Your task to perform on an android device: manage bookmarks in the chrome app Image 0: 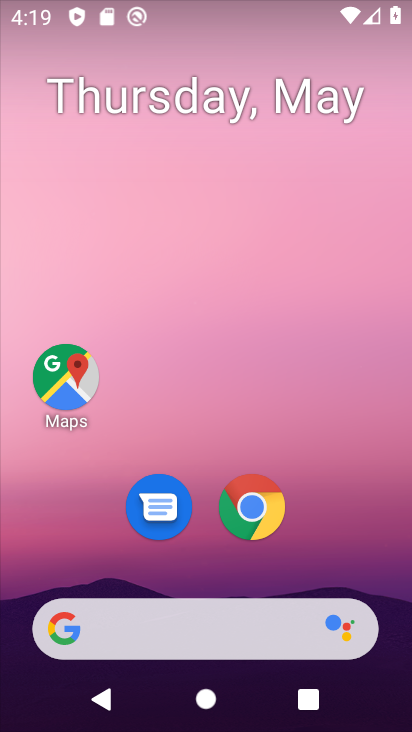
Step 0: drag from (362, 581) to (113, 6)
Your task to perform on an android device: manage bookmarks in the chrome app Image 1: 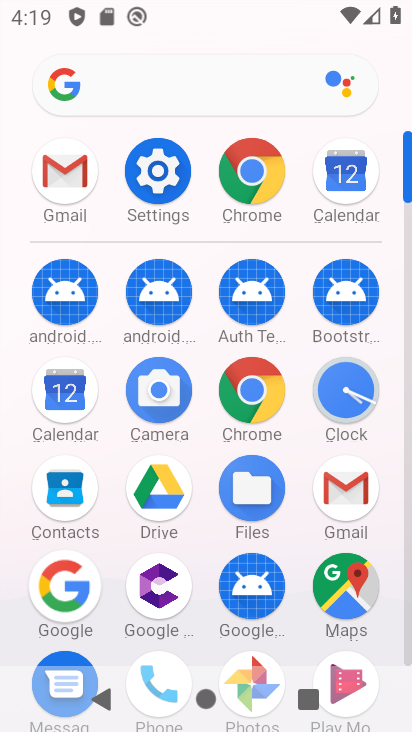
Step 1: click (237, 182)
Your task to perform on an android device: manage bookmarks in the chrome app Image 2: 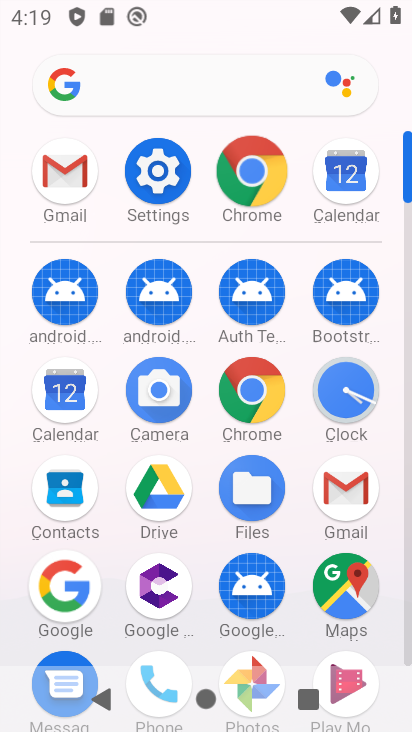
Step 2: click (241, 168)
Your task to perform on an android device: manage bookmarks in the chrome app Image 3: 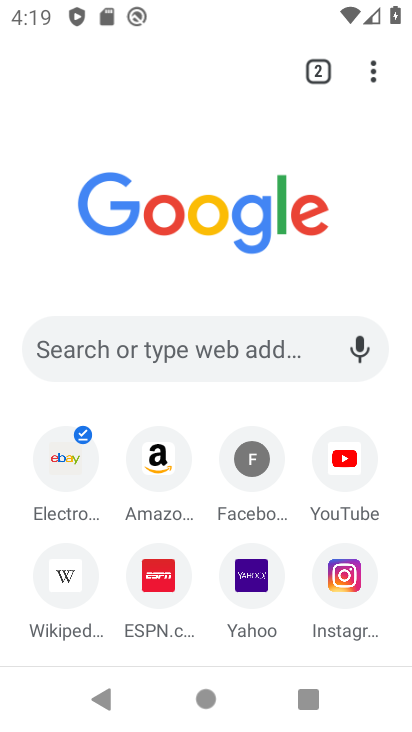
Step 3: click (365, 72)
Your task to perform on an android device: manage bookmarks in the chrome app Image 4: 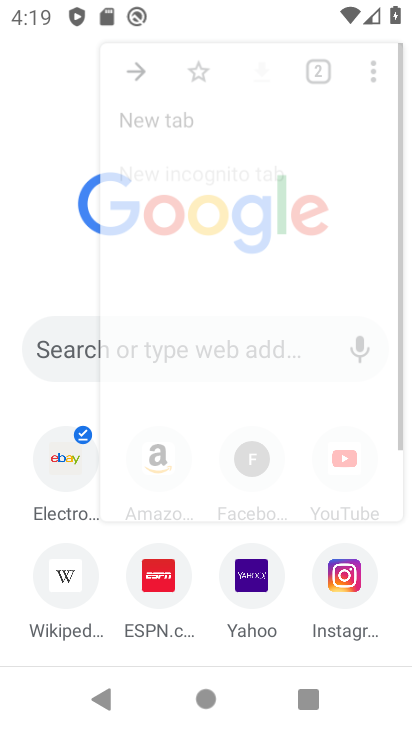
Step 4: click (370, 69)
Your task to perform on an android device: manage bookmarks in the chrome app Image 5: 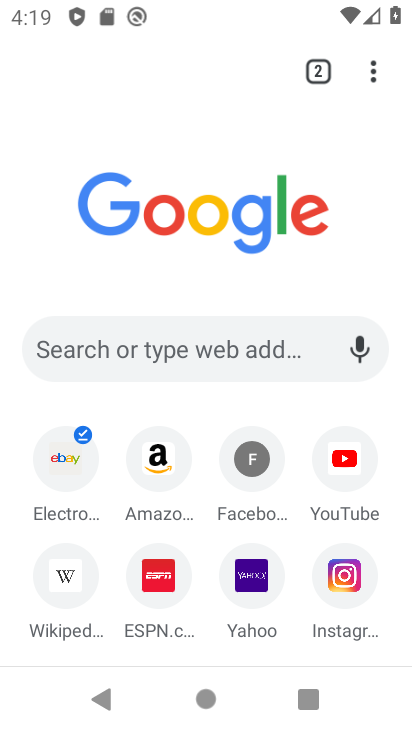
Step 5: click (371, 75)
Your task to perform on an android device: manage bookmarks in the chrome app Image 6: 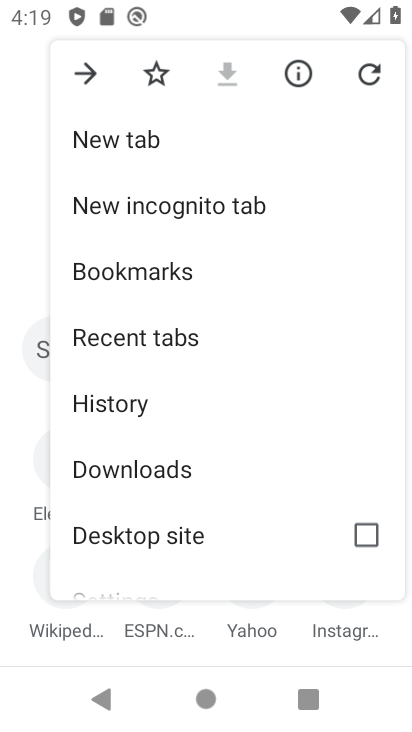
Step 6: click (111, 264)
Your task to perform on an android device: manage bookmarks in the chrome app Image 7: 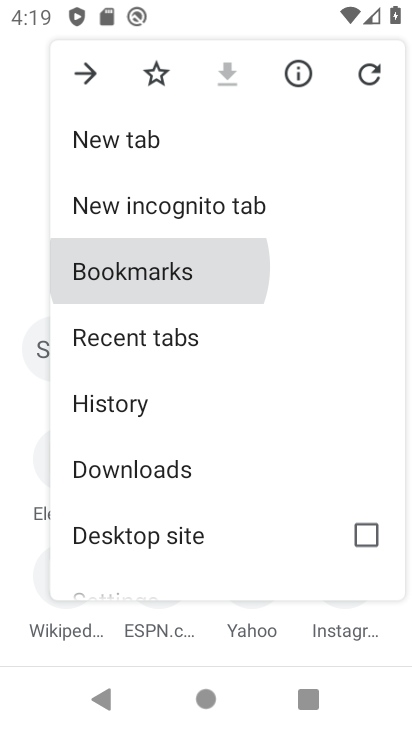
Step 7: click (111, 264)
Your task to perform on an android device: manage bookmarks in the chrome app Image 8: 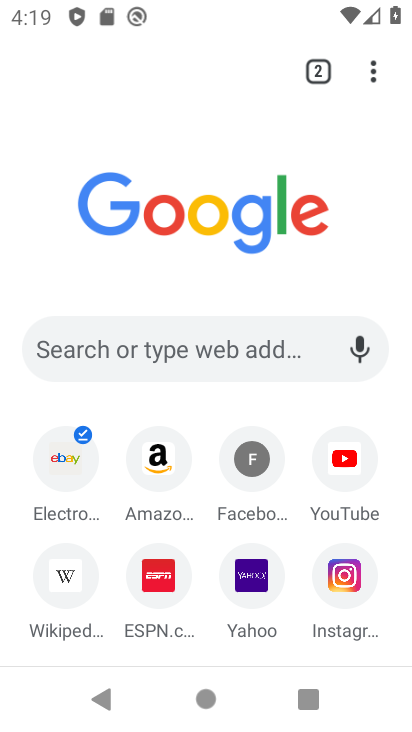
Step 8: click (113, 264)
Your task to perform on an android device: manage bookmarks in the chrome app Image 9: 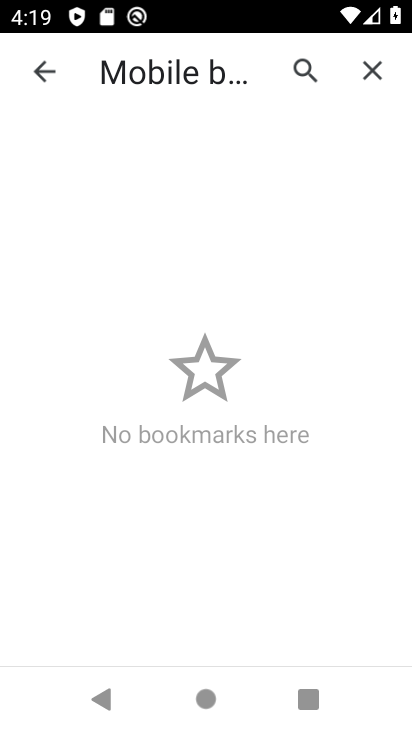
Step 9: click (120, 265)
Your task to perform on an android device: manage bookmarks in the chrome app Image 10: 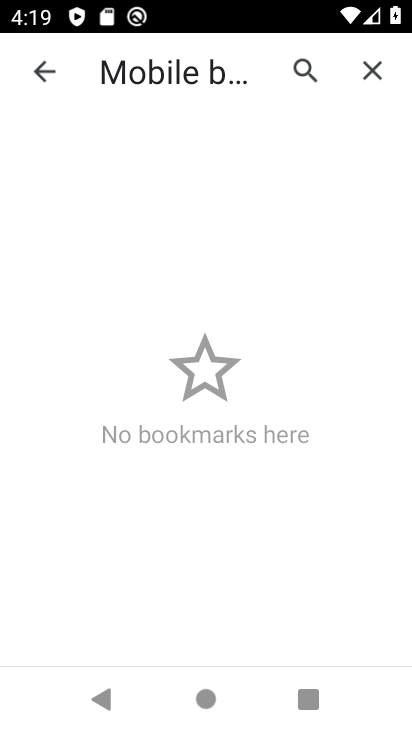
Step 10: task complete